Your task to perform on an android device: Search for "bose soundlink" on costco, select the first entry, add it to the cart, then select checkout. Image 0: 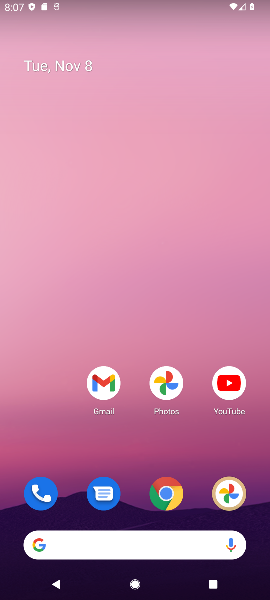
Step 0: click (167, 495)
Your task to perform on an android device: Search for "bose soundlink" on costco, select the first entry, add it to the cart, then select checkout. Image 1: 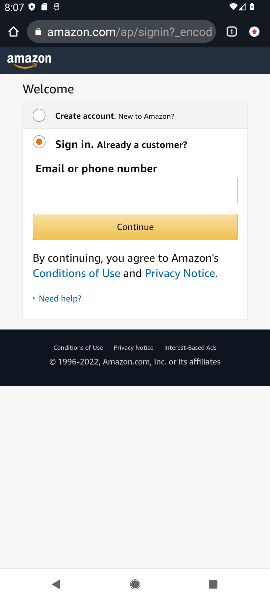
Step 1: click (86, 33)
Your task to perform on an android device: Search for "bose soundlink" on costco, select the first entry, add it to the cart, then select checkout. Image 2: 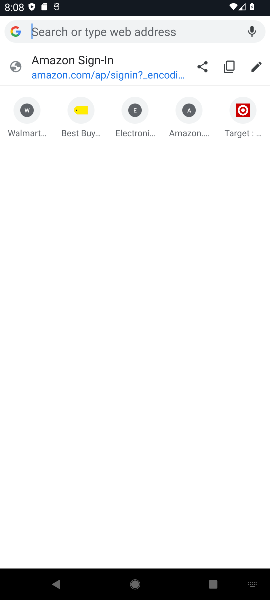
Step 2: type "costco.com"
Your task to perform on an android device: Search for "bose soundlink" on costco, select the first entry, add it to the cart, then select checkout. Image 3: 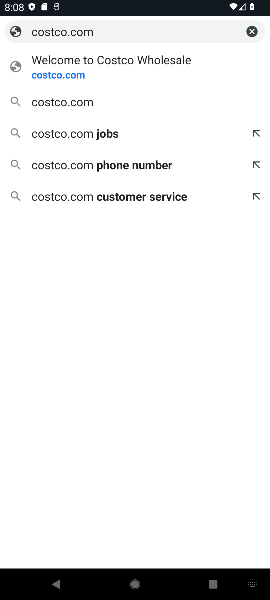
Step 3: click (55, 77)
Your task to perform on an android device: Search for "bose soundlink" on costco, select the first entry, add it to the cart, then select checkout. Image 4: 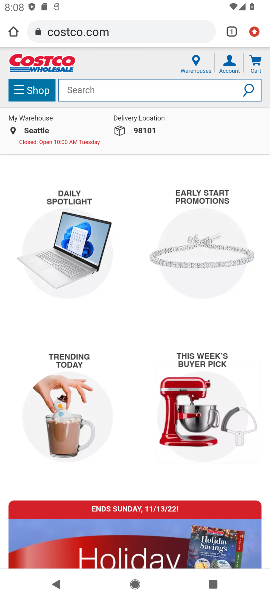
Step 4: click (87, 88)
Your task to perform on an android device: Search for "bose soundlink" on costco, select the first entry, add it to the cart, then select checkout. Image 5: 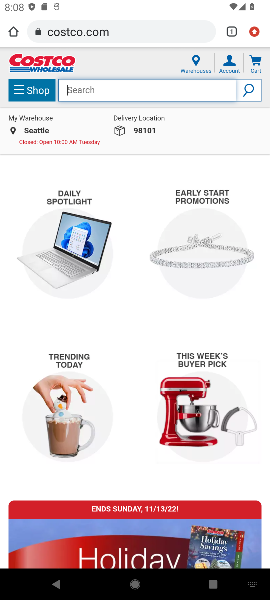
Step 5: type "bose soundlink"
Your task to perform on an android device: Search for "bose soundlink" on costco, select the first entry, add it to the cart, then select checkout. Image 6: 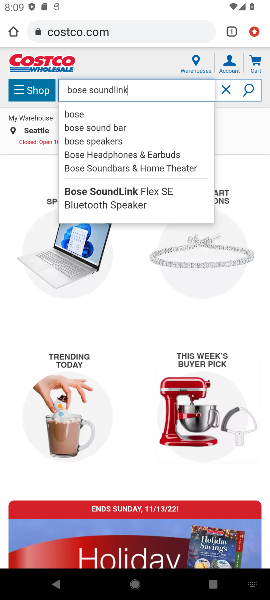
Step 6: click (243, 89)
Your task to perform on an android device: Search for "bose soundlink" on costco, select the first entry, add it to the cart, then select checkout. Image 7: 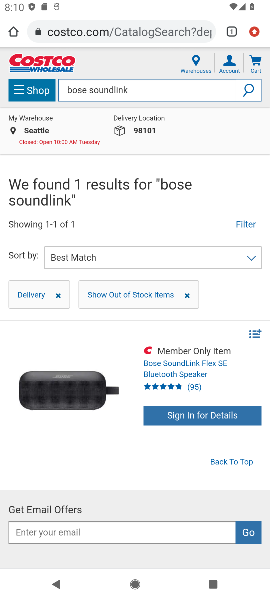
Step 7: click (79, 401)
Your task to perform on an android device: Search for "bose soundlink" on costco, select the first entry, add it to the cart, then select checkout. Image 8: 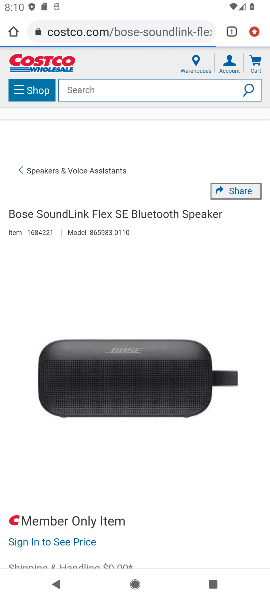
Step 8: task complete